Your task to perform on an android device: check storage Image 0: 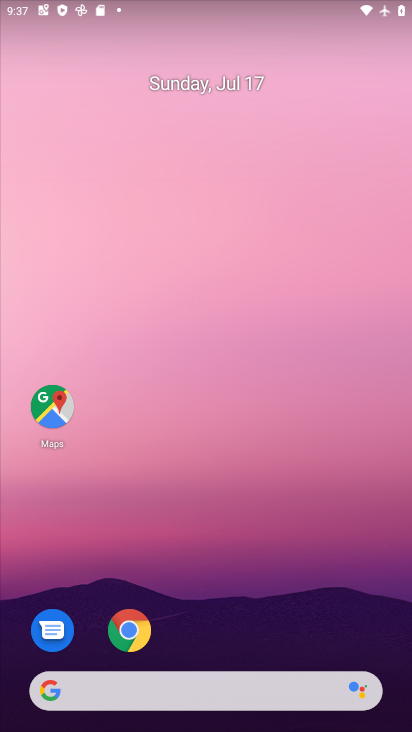
Step 0: drag from (292, 652) to (291, 246)
Your task to perform on an android device: check storage Image 1: 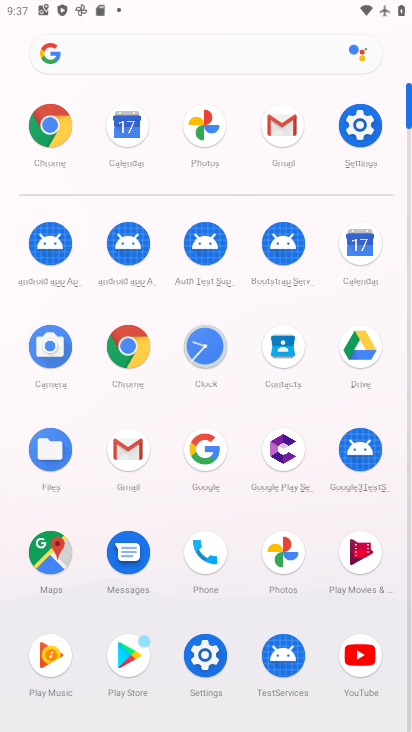
Step 1: click (205, 641)
Your task to perform on an android device: check storage Image 2: 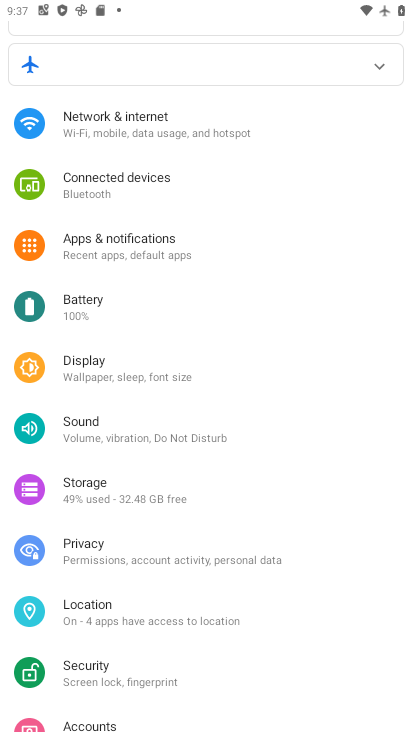
Step 2: click (117, 472)
Your task to perform on an android device: check storage Image 3: 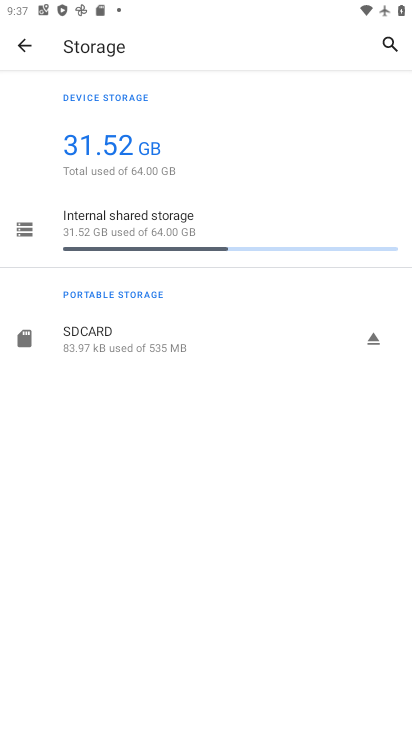
Step 3: task complete